Your task to perform on an android device: Open Google Chrome Image 0: 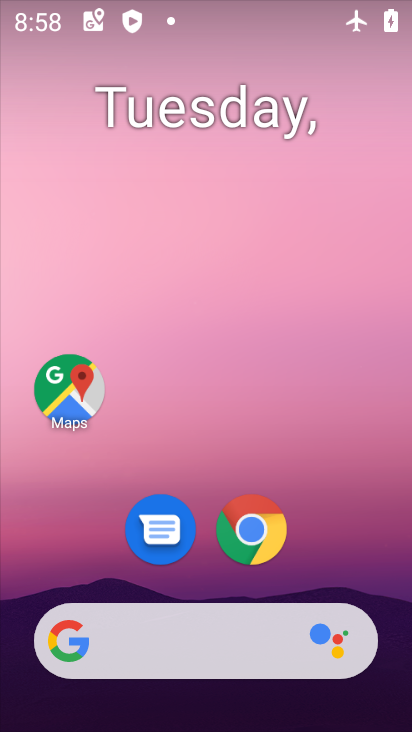
Step 0: drag from (183, 658) to (252, 179)
Your task to perform on an android device: Open Google Chrome Image 1: 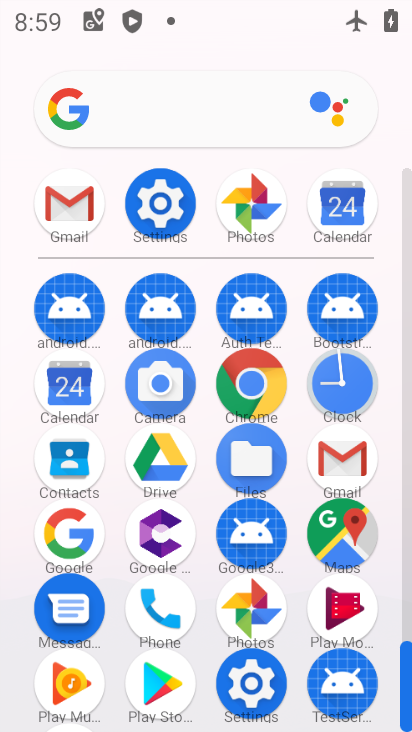
Step 1: drag from (143, 550) to (222, 205)
Your task to perform on an android device: Open Google Chrome Image 2: 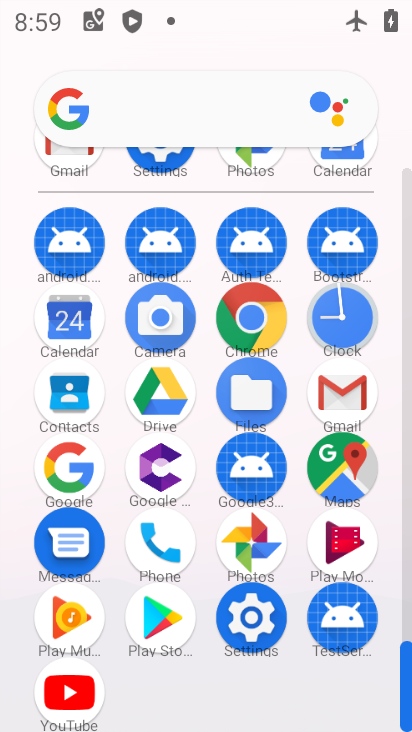
Step 2: click (248, 329)
Your task to perform on an android device: Open Google Chrome Image 3: 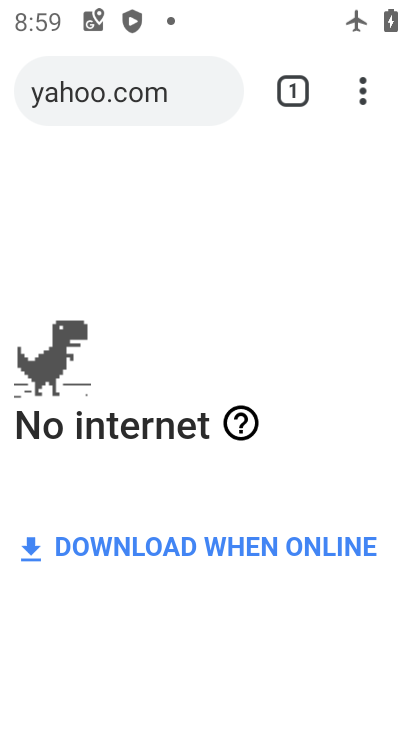
Step 3: task complete